Your task to perform on an android device: Open eBay Image 0: 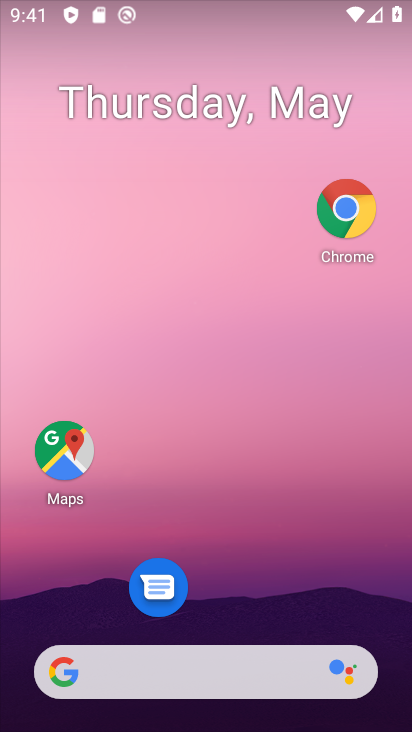
Step 0: drag from (214, 592) to (271, 30)
Your task to perform on an android device: Open eBay Image 1: 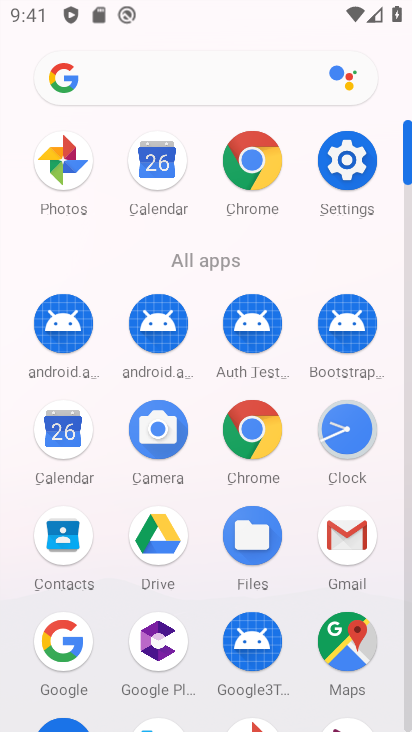
Step 1: click (249, 206)
Your task to perform on an android device: Open eBay Image 2: 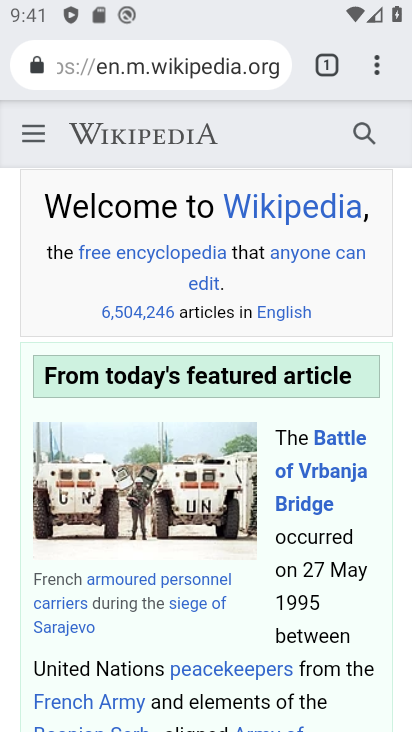
Step 2: press back button
Your task to perform on an android device: Open eBay Image 3: 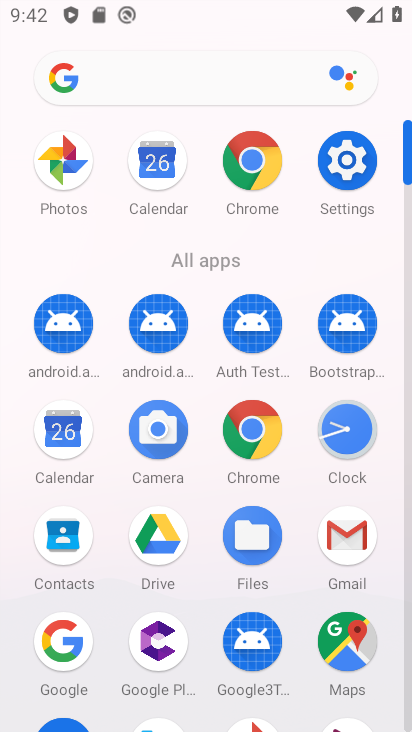
Step 3: click (256, 186)
Your task to perform on an android device: Open eBay Image 4: 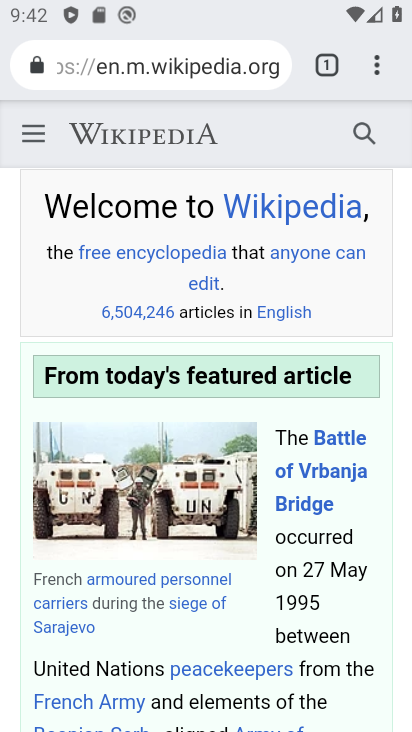
Step 4: click (157, 64)
Your task to perform on an android device: Open eBay Image 5: 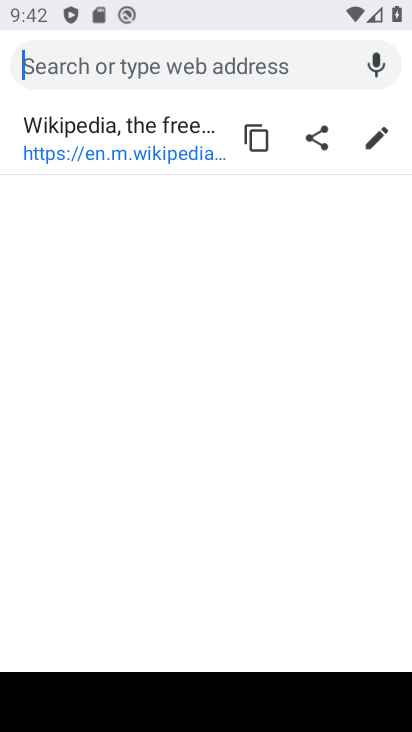
Step 5: type "www.ebay.com"
Your task to perform on an android device: Open eBay Image 6: 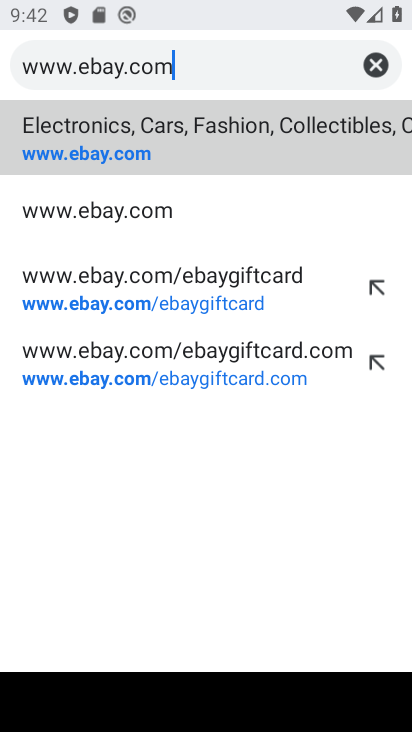
Step 6: click (94, 145)
Your task to perform on an android device: Open eBay Image 7: 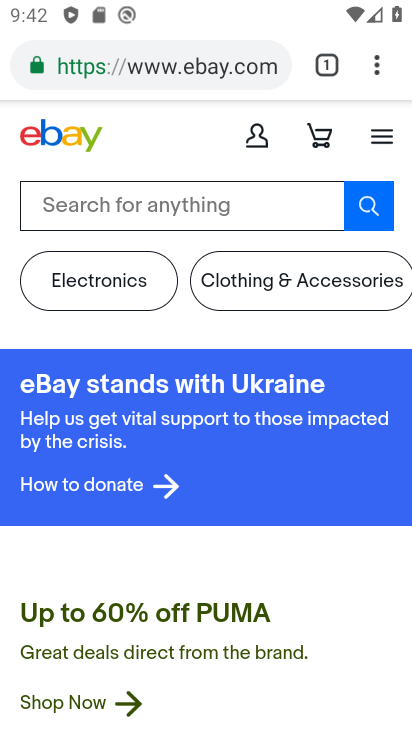
Step 7: task complete